Your task to perform on an android device: toggle wifi Image 0: 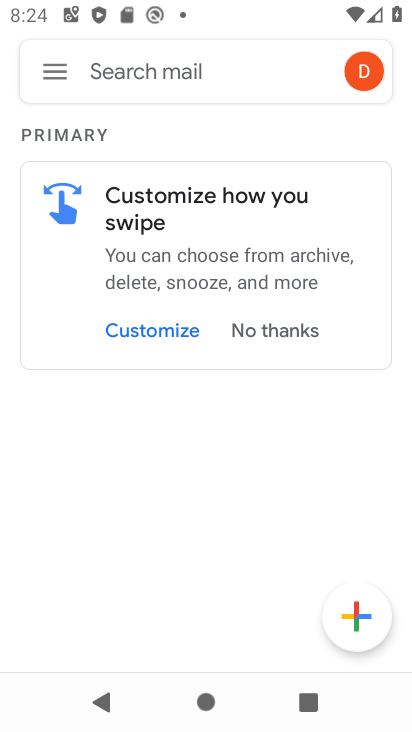
Step 0: press home button
Your task to perform on an android device: toggle wifi Image 1: 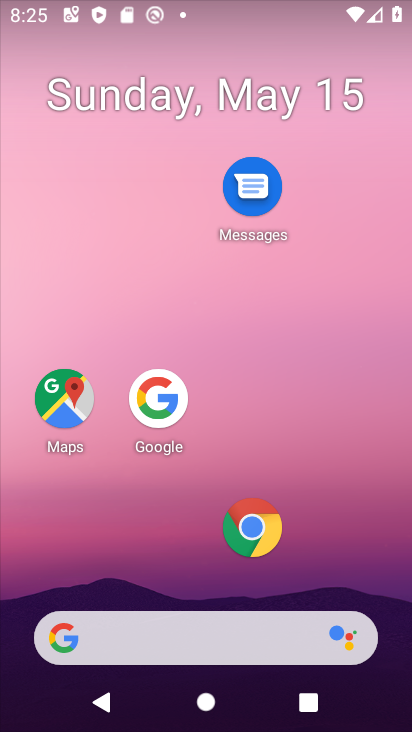
Step 1: drag from (198, 603) to (266, 208)
Your task to perform on an android device: toggle wifi Image 2: 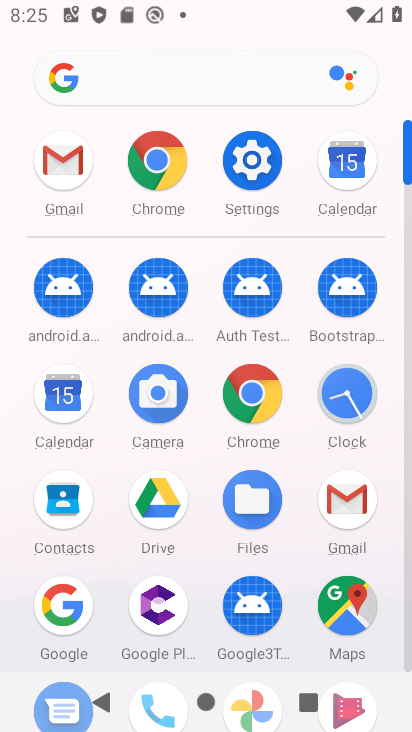
Step 2: click (245, 167)
Your task to perform on an android device: toggle wifi Image 3: 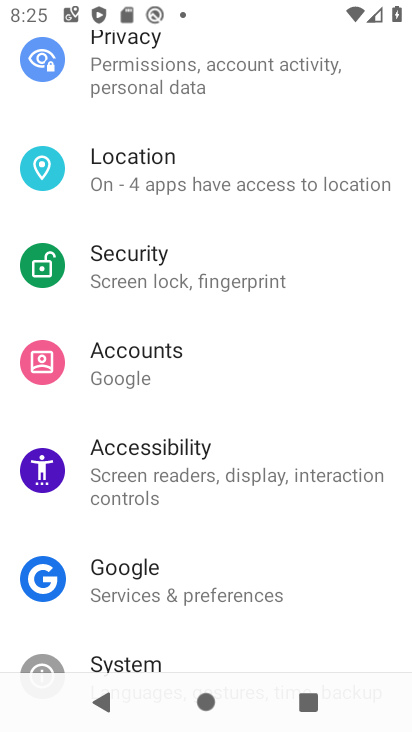
Step 3: drag from (323, 101) to (279, 536)
Your task to perform on an android device: toggle wifi Image 4: 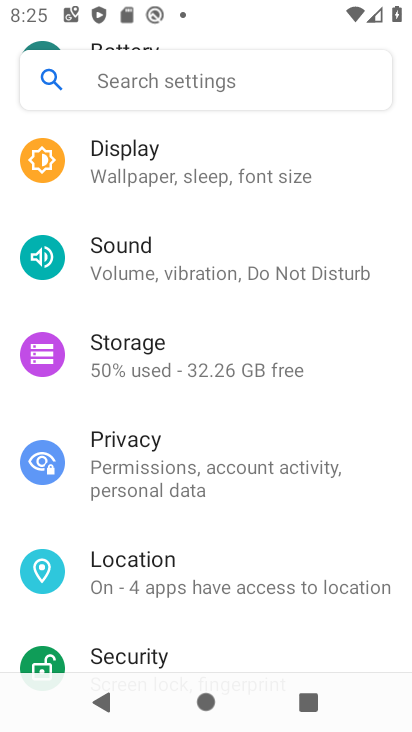
Step 4: drag from (296, 135) to (272, 464)
Your task to perform on an android device: toggle wifi Image 5: 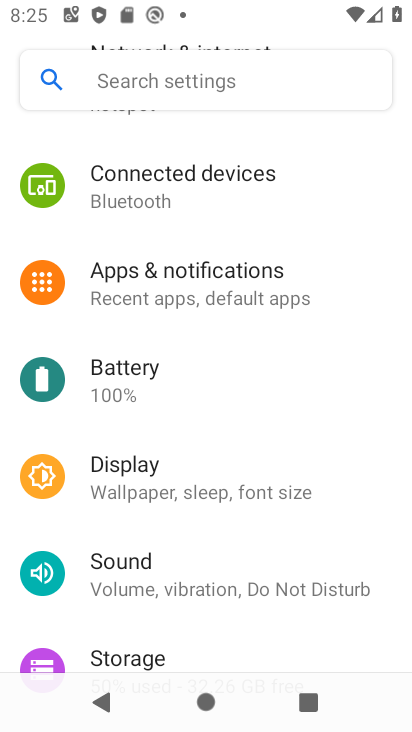
Step 5: drag from (317, 149) to (296, 427)
Your task to perform on an android device: toggle wifi Image 6: 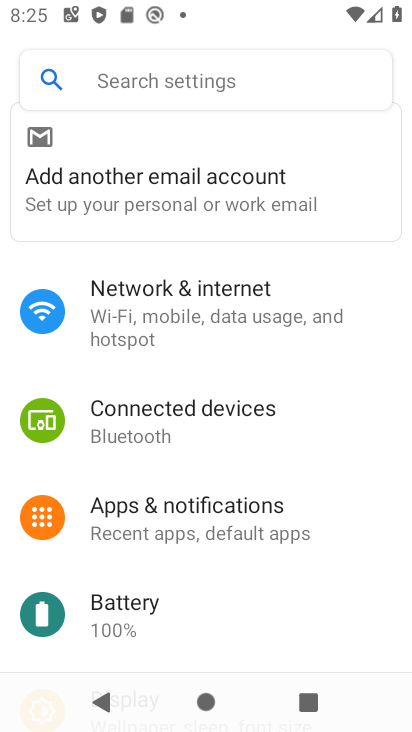
Step 6: click (206, 297)
Your task to perform on an android device: toggle wifi Image 7: 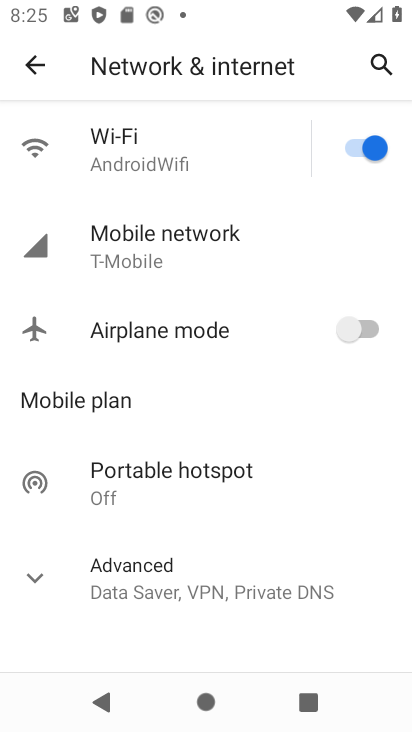
Step 7: click (349, 145)
Your task to perform on an android device: toggle wifi Image 8: 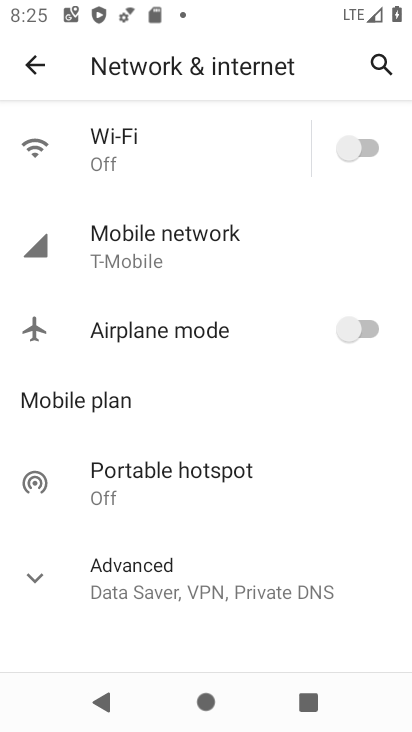
Step 8: task complete